Your task to perform on an android device: clear history in the chrome app Image 0: 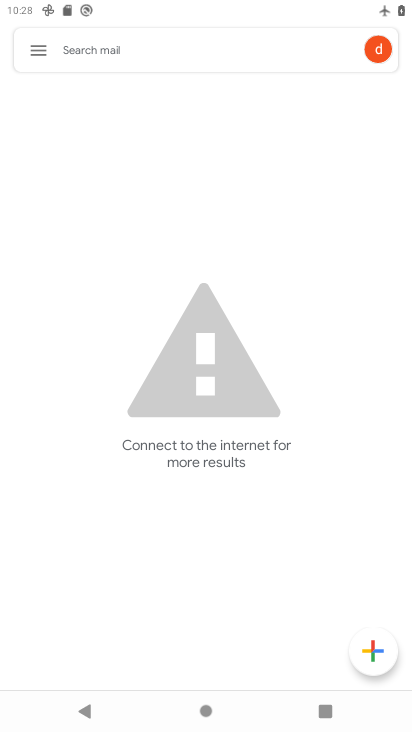
Step 0: press back button
Your task to perform on an android device: clear history in the chrome app Image 1: 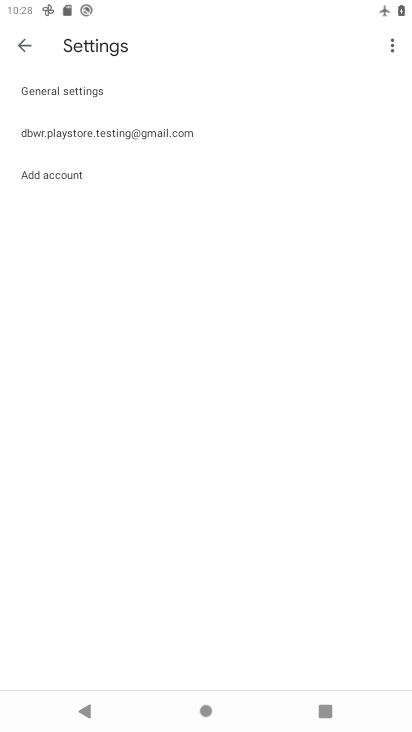
Step 1: click (26, 51)
Your task to perform on an android device: clear history in the chrome app Image 2: 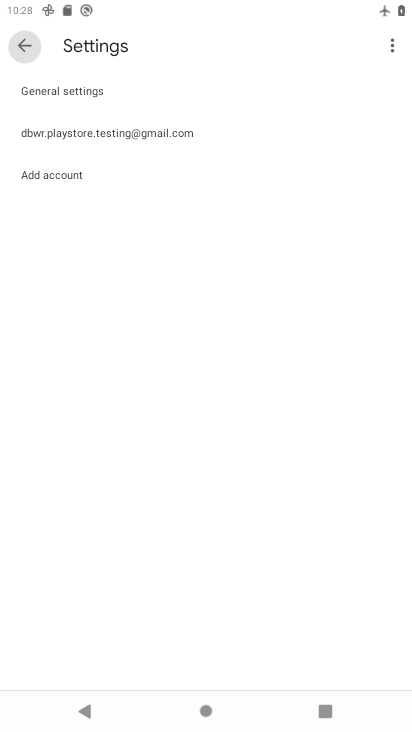
Step 2: click (26, 51)
Your task to perform on an android device: clear history in the chrome app Image 3: 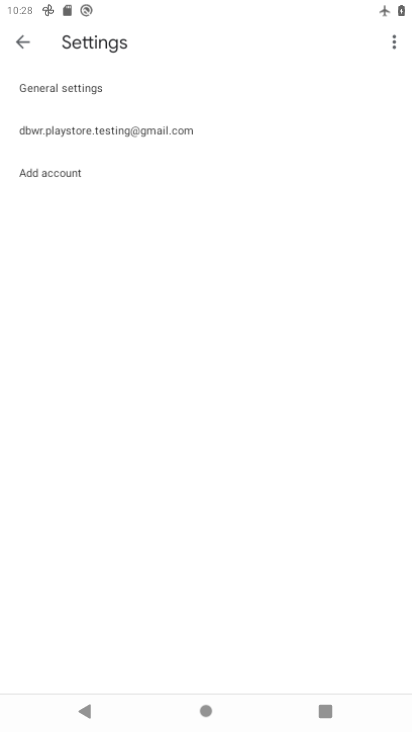
Step 3: click (26, 51)
Your task to perform on an android device: clear history in the chrome app Image 4: 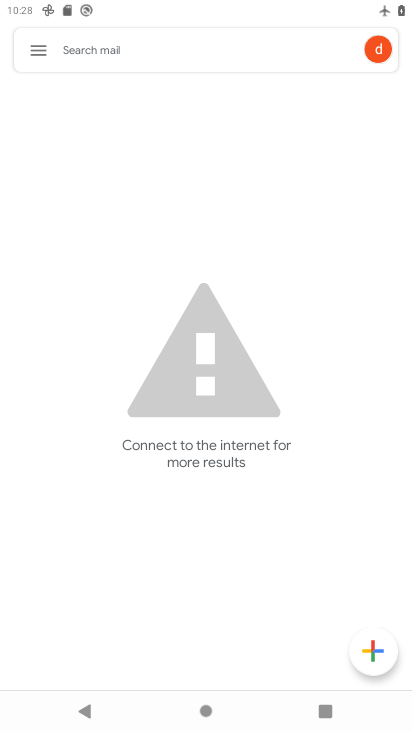
Step 4: press home button
Your task to perform on an android device: clear history in the chrome app Image 5: 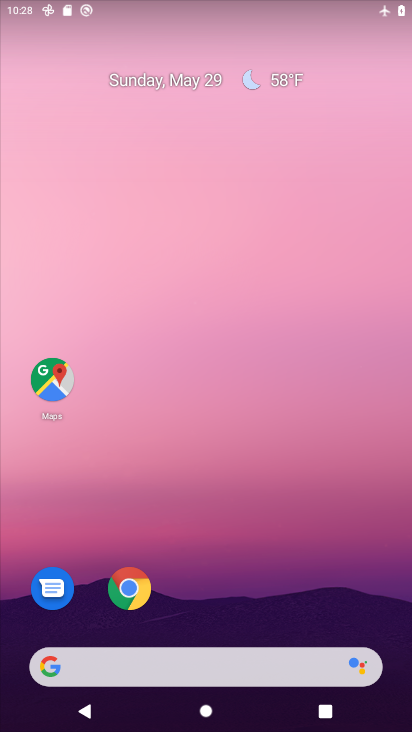
Step 5: drag from (275, 669) to (250, 287)
Your task to perform on an android device: clear history in the chrome app Image 6: 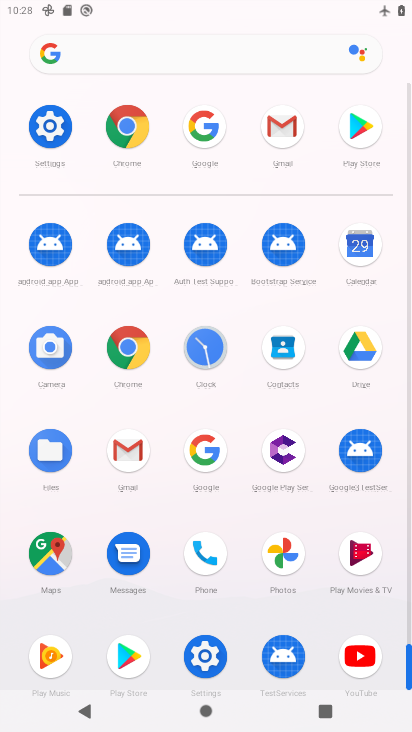
Step 6: click (129, 129)
Your task to perform on an android device: clear history in the chrome app Image 7: 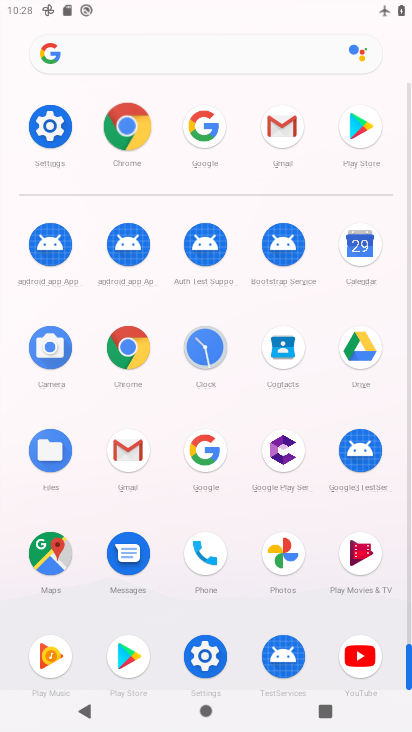
Step 7: click (129, 129)
Your task to perform on an android device: clear history in the chrome app Image 8: 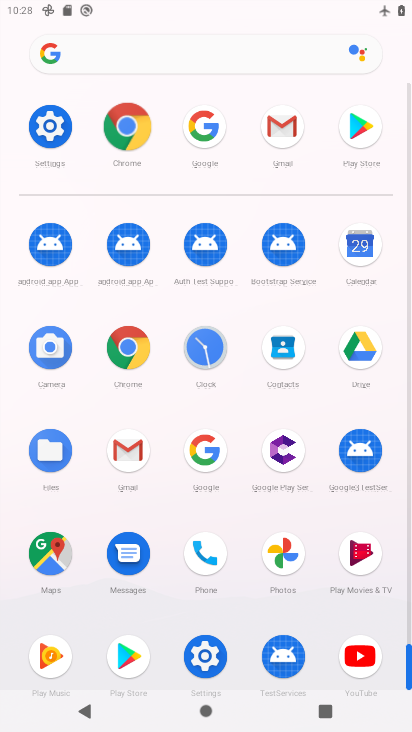
Step 8: click (131, 127)
Your task to perform on an android device: clear history in the chrome app Image 9: 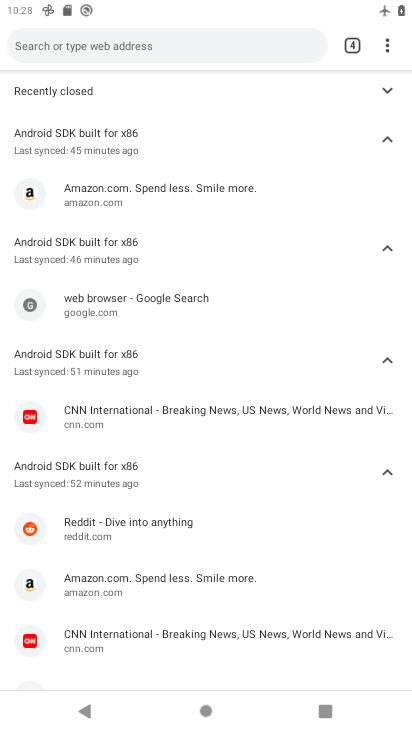
Step 9: click (390, 49)
Your task to perform on an android device: clear history in the chrome app Image 10: 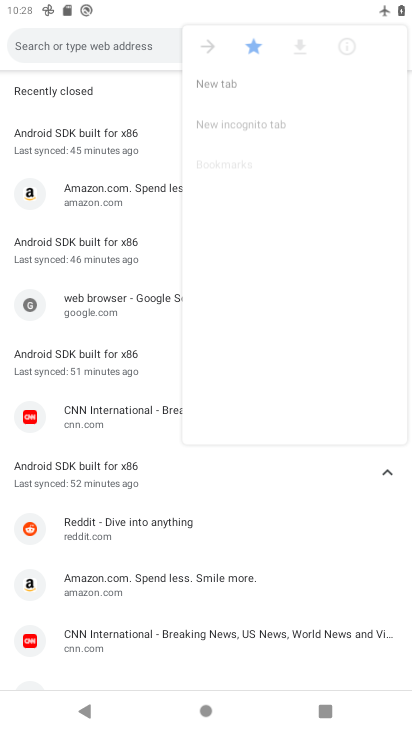
Step 10: click (390, 49)
Your task to perform on an android device: clear history in the chrome app Image 11: 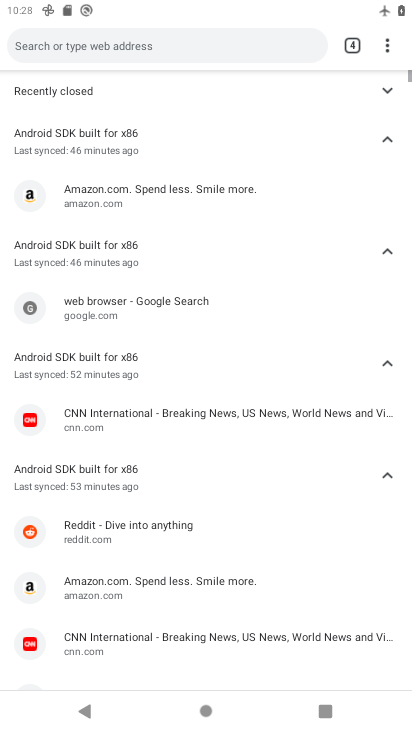
Step 11: drag from (382, 55) to (211, 263)
Your task to perform on an android device: clear history in the chrome app Image 12: 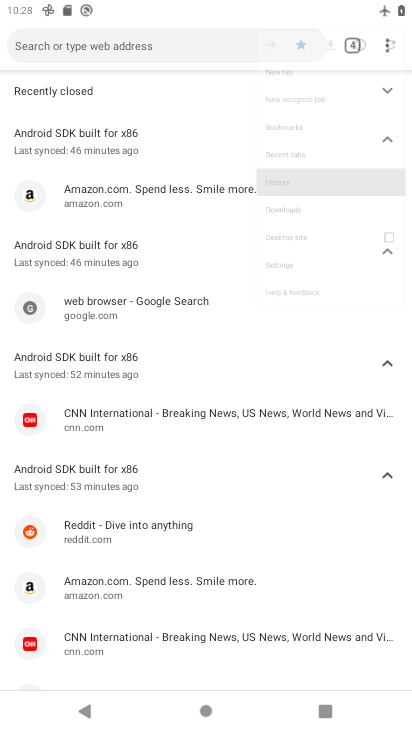
Step 12: click (211, 267)
Your task to perform on an android device: clear history in the chrome app Image 13: 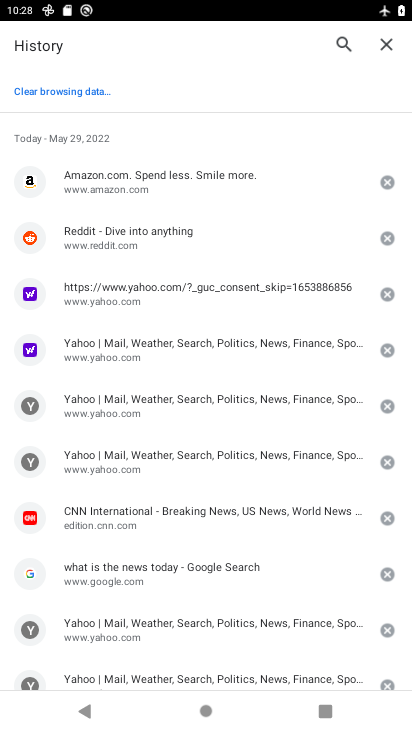
Step 13: click (65, 85)
Your task to perform on an android device: clear history in the chrome app Image 14: 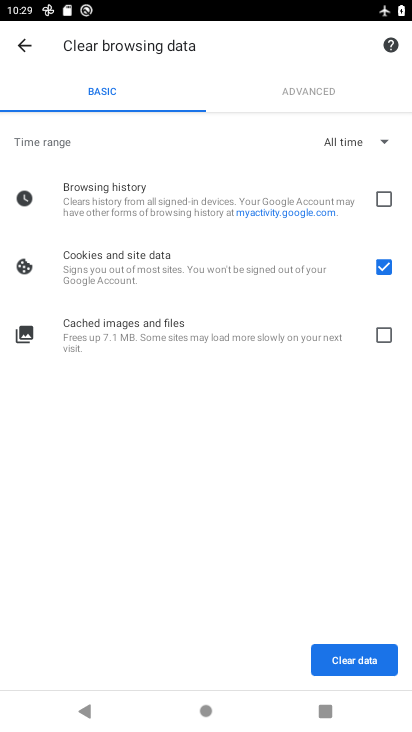
Step 14: click (88, 96)
Your task to perform on an android device: clear history in the chrome app Image 15: 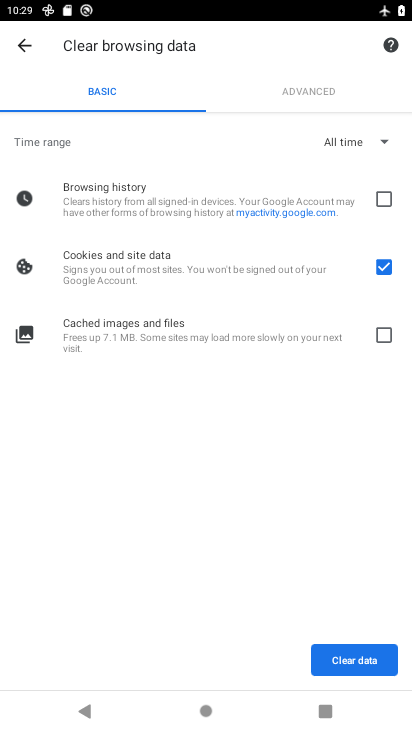
Step 15: click (366, 660)
Your task to perform on an android device: clear history in the chrome app Image 16: 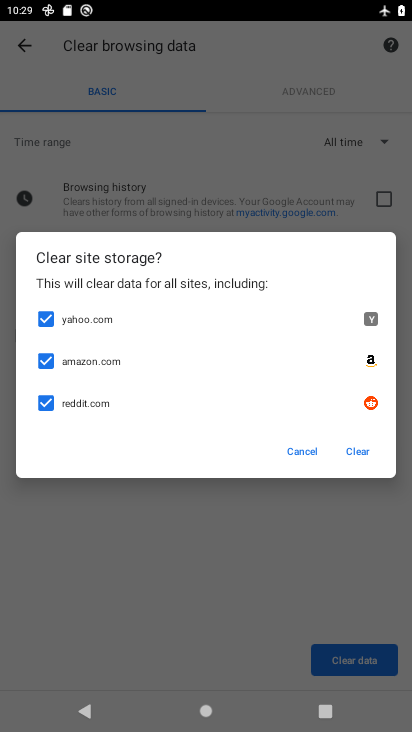
Step 16: click (360, 663)
Your task to perform on an android device: clear history in the chrome app Image 17: 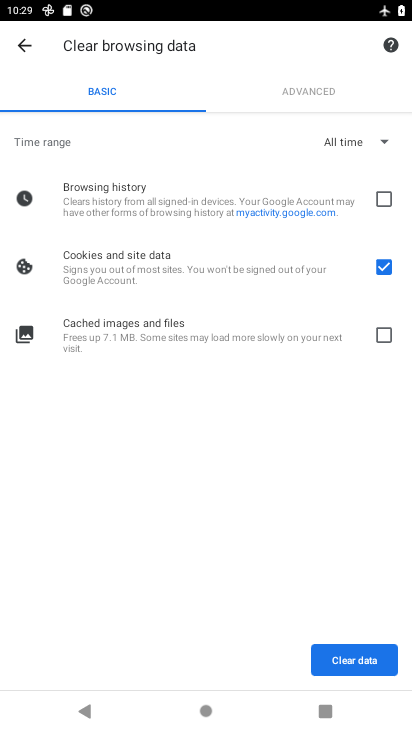
Step 17: click (372, 444)
Your task to perform on an android device: clear history in the chrome app Image 18: 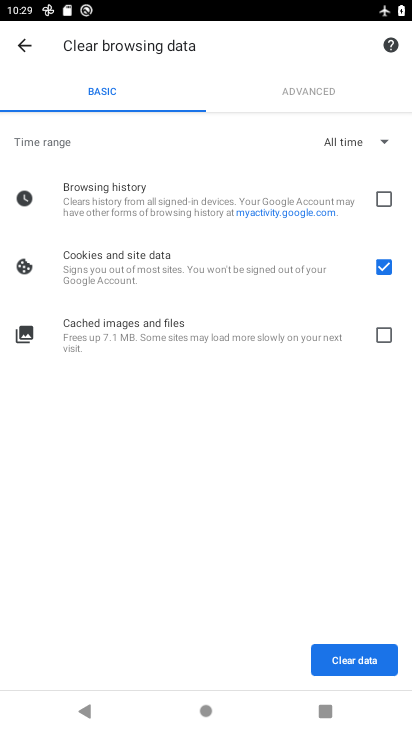
Step 18: click (361, 661)
Your task to perform on an android device: clear history in the chrome app Image 19: 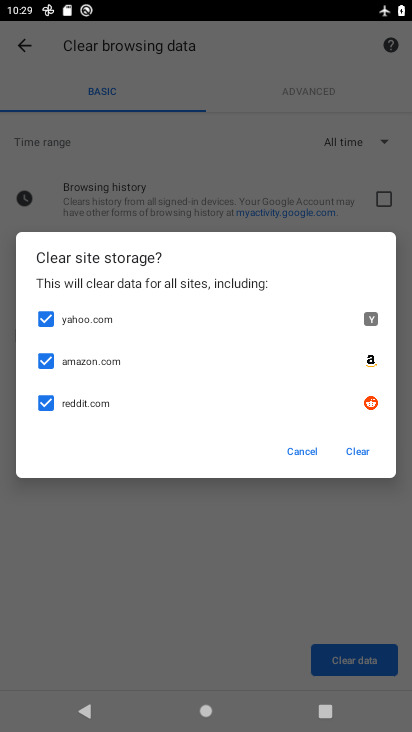
Step 19: click (352, 447)
Your task to perform on an android device: clear history in the chrome app Image 20: 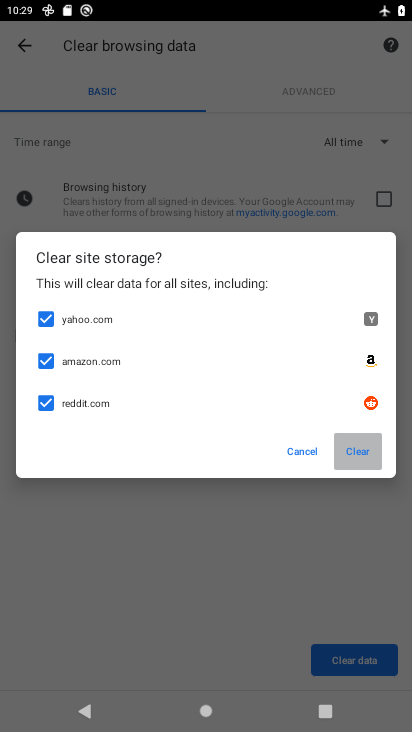
Step 20: click (353, 448)
Your task to perform on an android device: clear history in the chrome app Image 21: 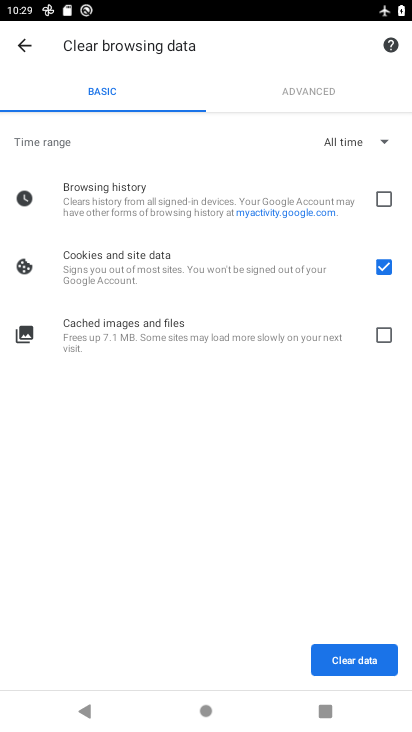
Step 21: click (355, 447)
Your task to perform on an android device: clear history in the chrome app Image 22: 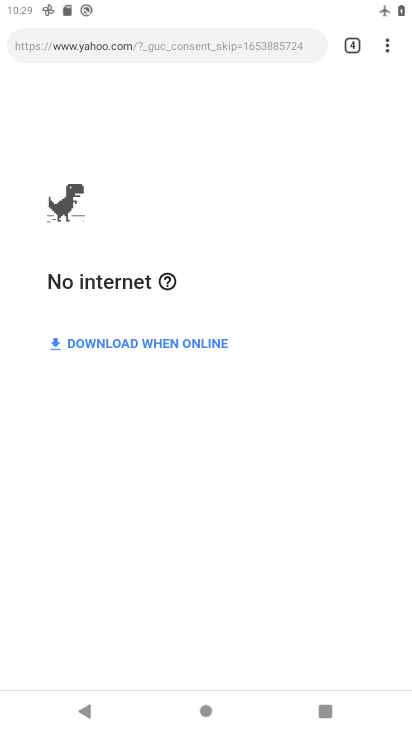
Step 22: task complete